Your task to perform on an android device: Open CNN.com Image 0: 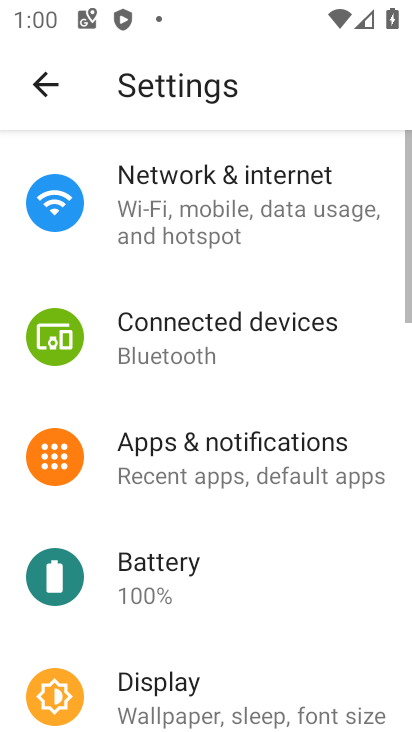
Step 0: press home button
Your task to perform on an android device: Open CNN.com Image 1: 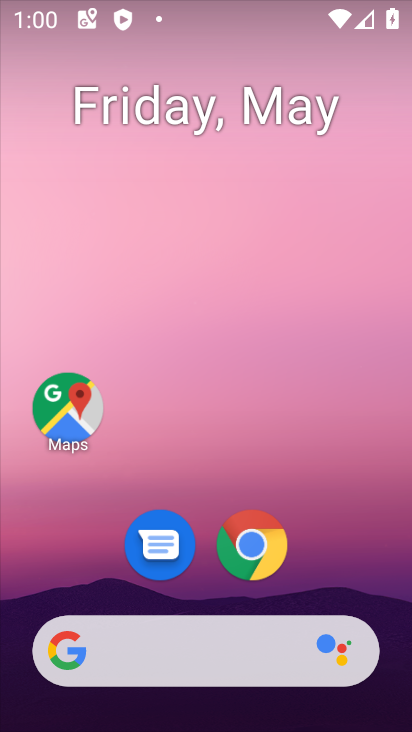
Step 1: click (245, 565)
Your task to perform on an android device: Open CNN.com Image 2: 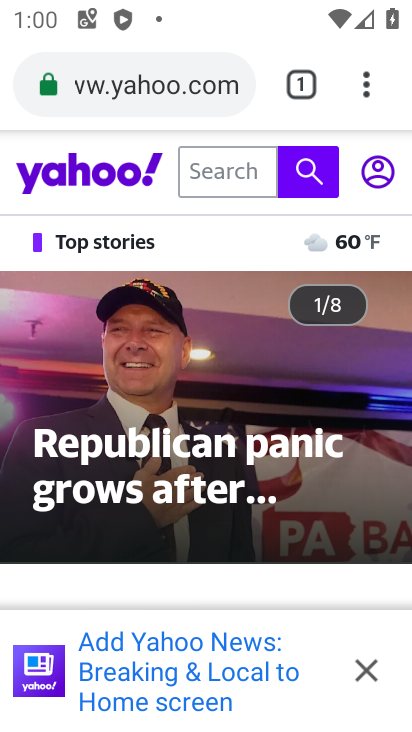
Step 2: click (296, 74)
Your task to perform on an android device: Open CNN.com Image 3: 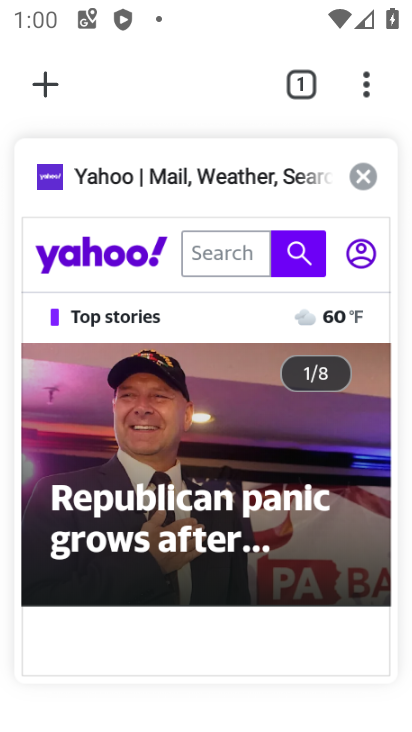
Step 3: click (51, 85)
Your task to perform on an android device: Open CNN.com Image 4: 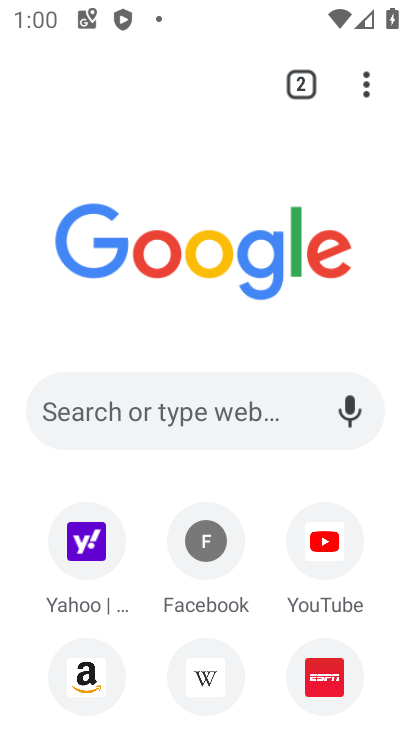
Step 4: click (191, 399)
Your task to perform on an android device: Open CNN.com Image 5: 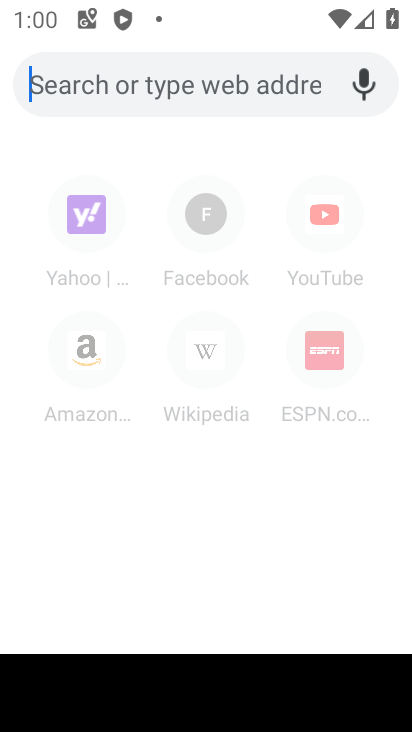
Step 5: type "CNN.com"
Your task to perform on an android device: Open CNN.com Image 6: 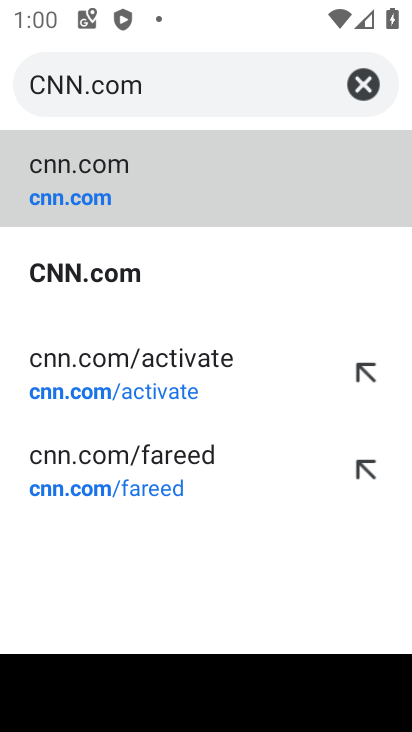
Step 6: click (112, 194)
Your task to perform on an android device: Open CNN.com Image 7: 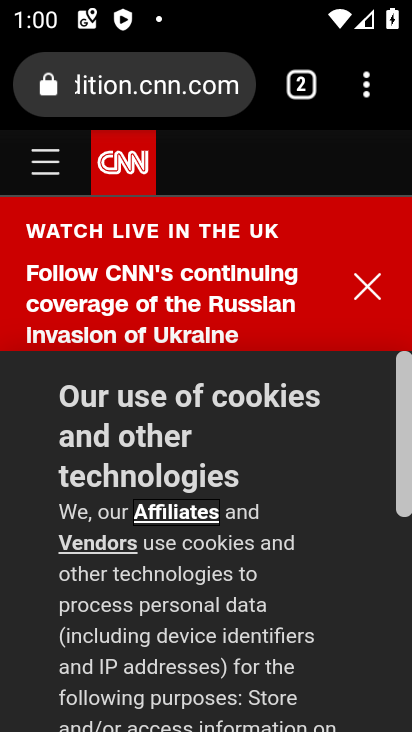
Step 7: task complete